Your task to perform on an android device: add a contact in the contacts app Image 0: 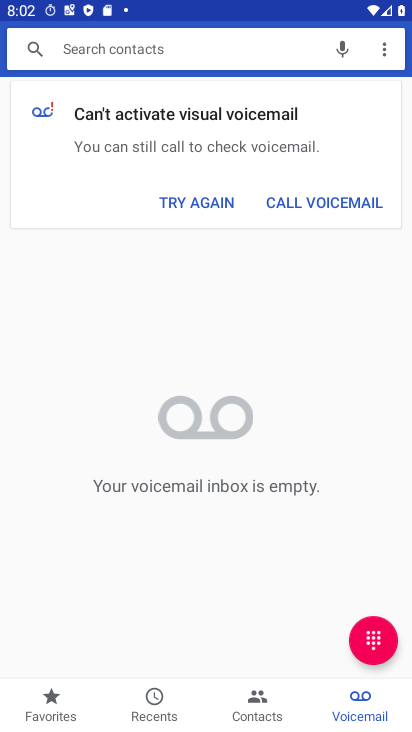
Step 0: press home button
Your task to perform on an android device: add a contact in the contacts app Image 1: 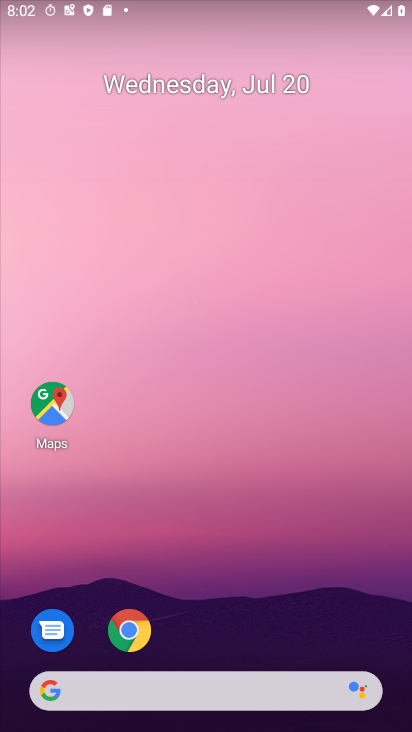
Step 1: drag from (241, 323) to (241, 263)
Your task to perform on an android device: add a contact in the contacts app Image 2: 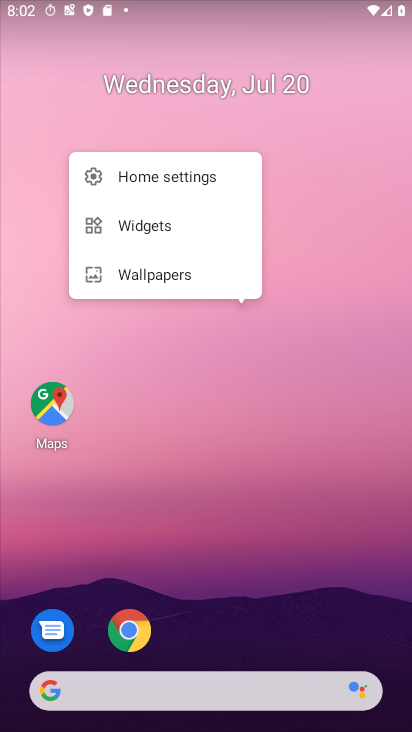
Step 2: click (335, 460)
Your task to perform on an android device: add a contact in the contacts app Image 3: 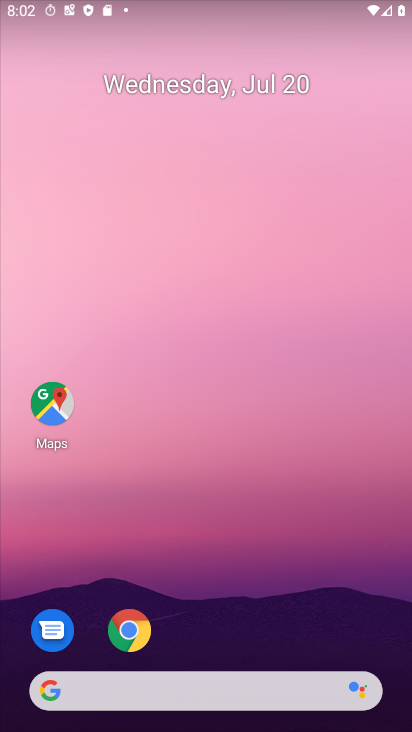
Step 3: click (122, 452)
Your task to perform on an android device: add a contact in the contacts app Image 4: 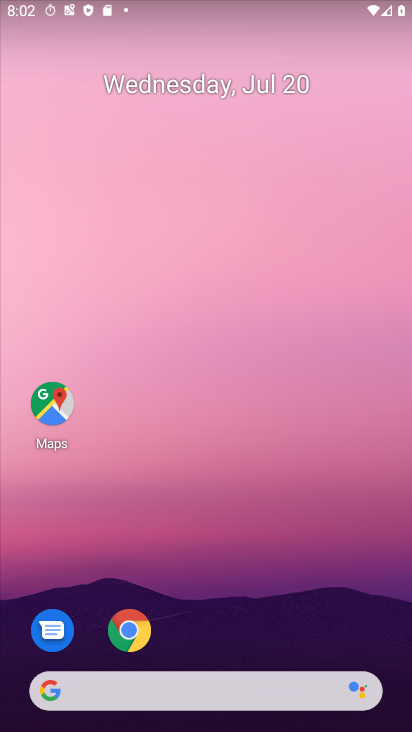
Step 4: drag from (183, 502) to (183, 253)
Your task to perform on an android device: add a contact in the contacts app Image 5: 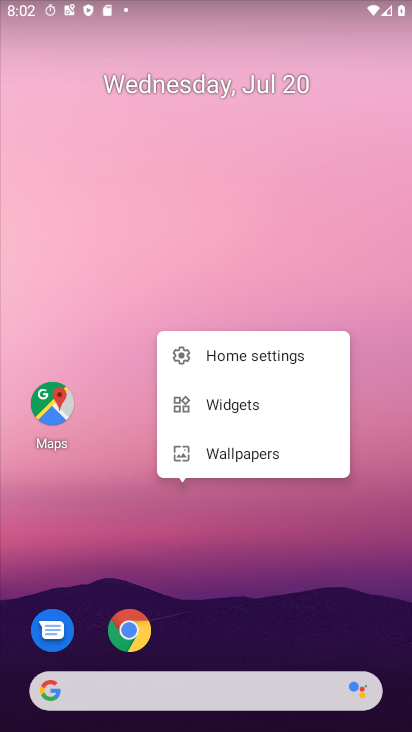
Step 5: drag from (284, 625) to (265, 62)
Your task to perform on an android device: add a contact in the contacts app Image 6: 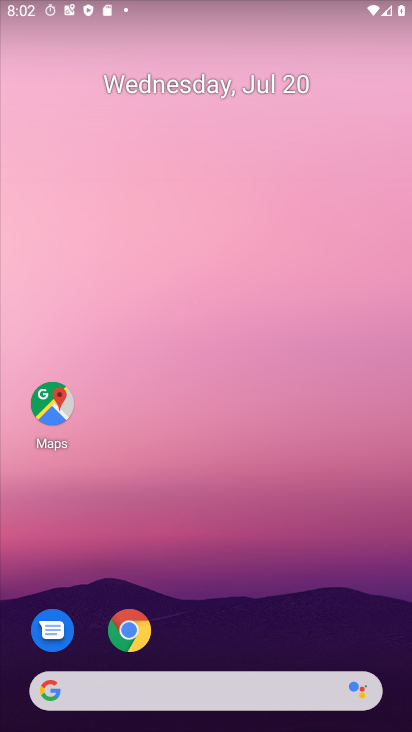
Step 6: click (332, 168)
Your task to perform on an android device: add a contact in the contacts app Image 7: 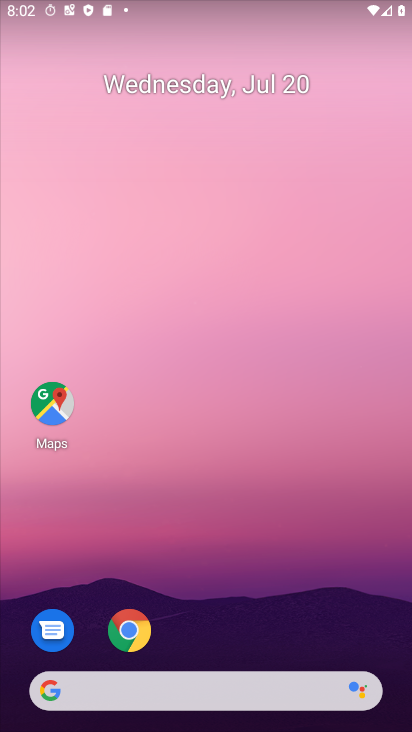
Step 7: drag from (213, 716) to (174, 102)
Your task to perform on an android device: add a contact in the contacts app Image 8: 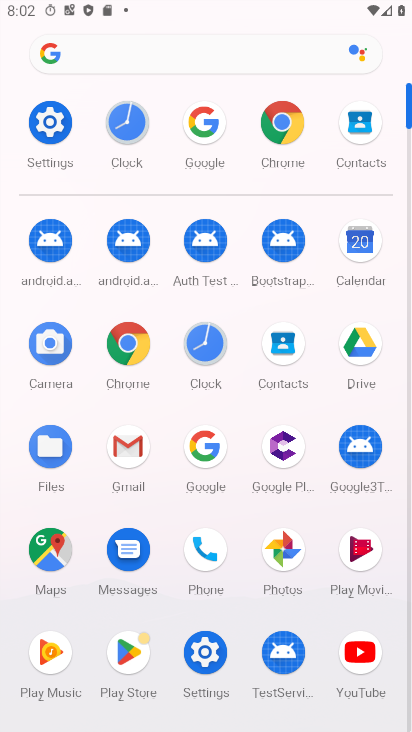
Step 8: click (293, 353)
Your task to perform on an android device: add a contact in the contacts app Image 9: 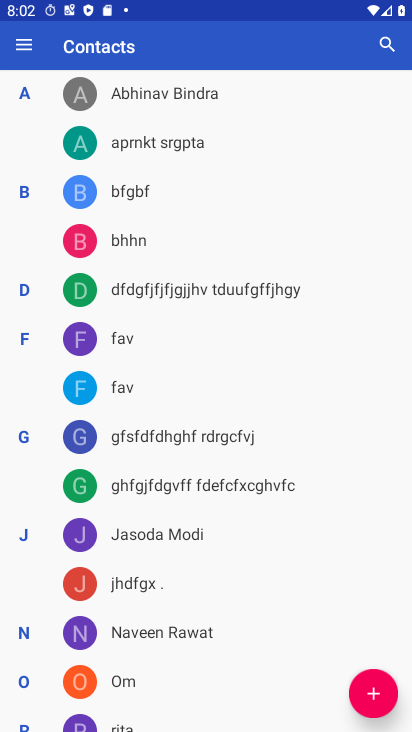
Step 9: click (369, 696)
Your task to perform on an android device: add a contact in the contacts app Image 10: 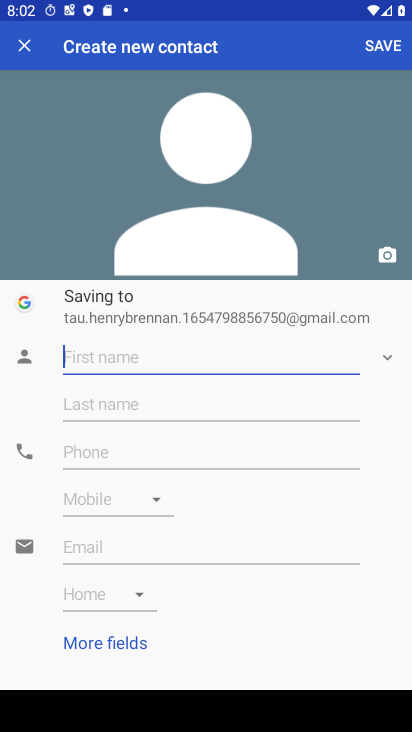
Step 10: type "ftgyhj"
Your task to perform on an android device: add a contact in the contacts app Image 11: 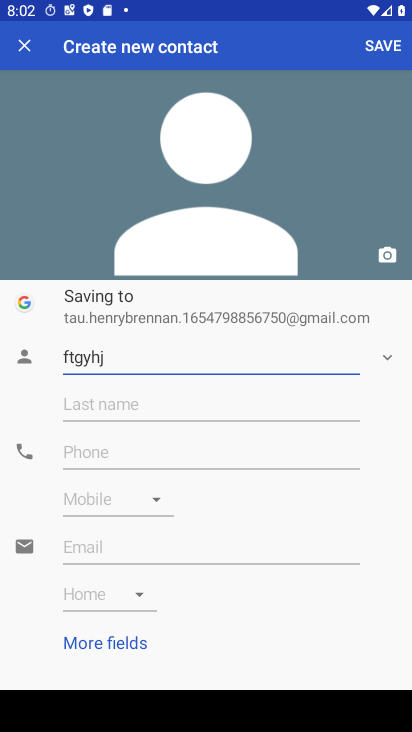
Step 11: click (185, 457)
Your task to perform on an android device: add a contact in the contacts app Image 12: 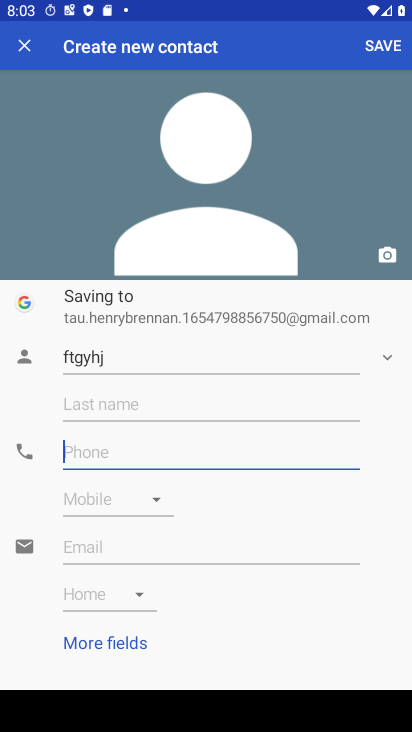
Step 12: type "0987456789"
Your task to perform on an android device: add a contact in the contacts app Image 13: 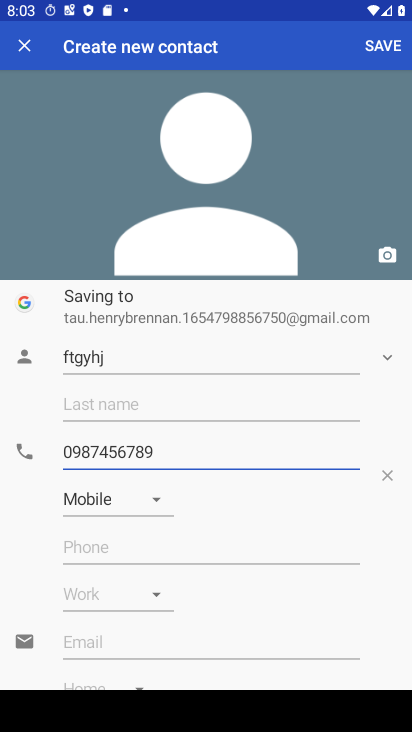
Step 13: click (381, 49)
Your task to perform on an android device: add a contact in the contacts app Image 14: 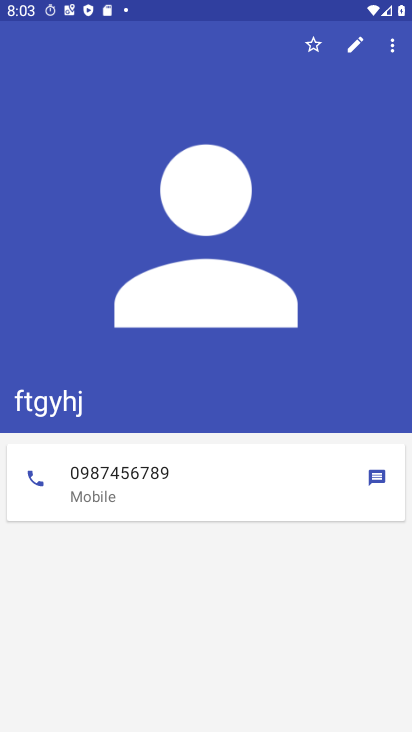
Step 14: task complete